Your task to perform on an android device: change the clock display to digital Image 0: 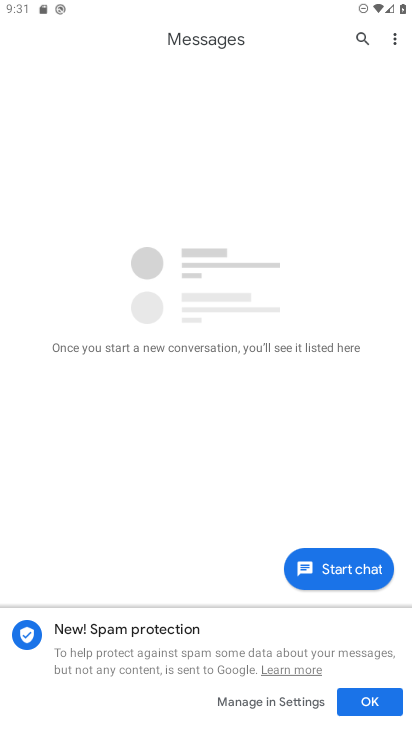
Step 0: press home button
Your task to perform on an android device: change the clock display to digital Image 1: 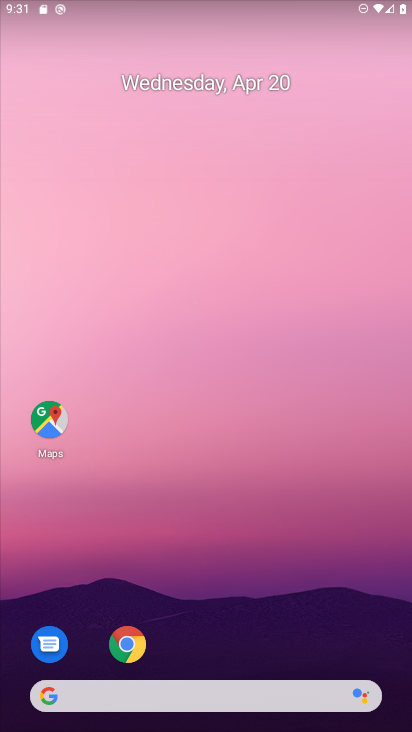
Step 1: drag from (277, 612) to (178, 87)
Your task to perform on an android device: change the clock display to digital Image 2: 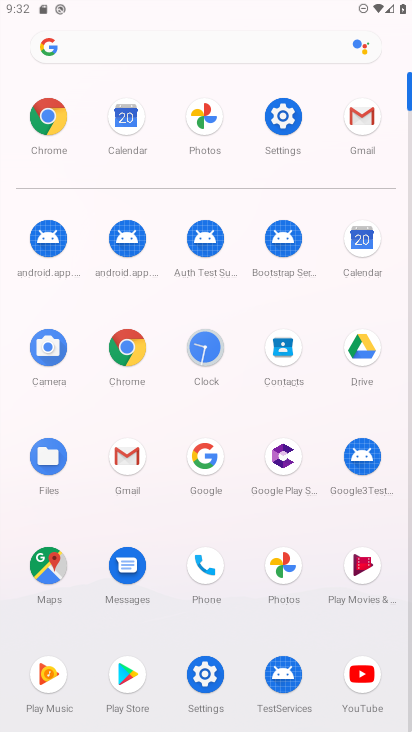
Step 2: click (207, 352)
Your task to perform on an android device: change the clock display to digital Image 3: 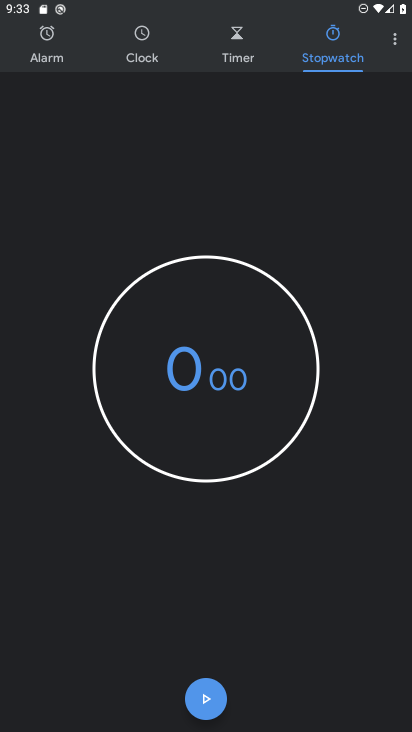
Step 3: click (385, 39)
Your task to perform on an android device: change the clock display to digital Image 4: 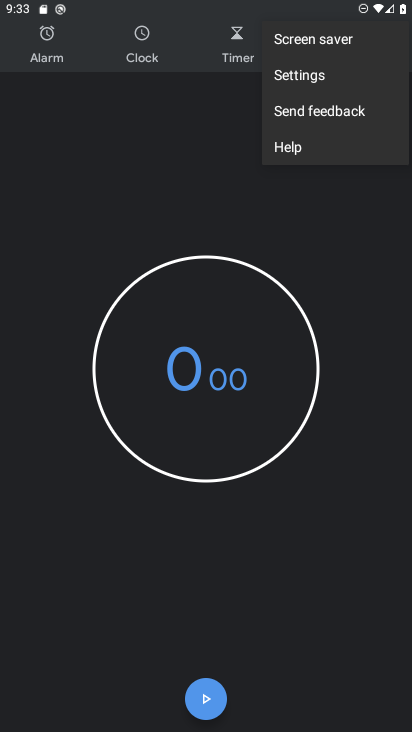
Step 4: click (297, 74)
Your task to perform on an android device: change the clock display to digital Image 5: 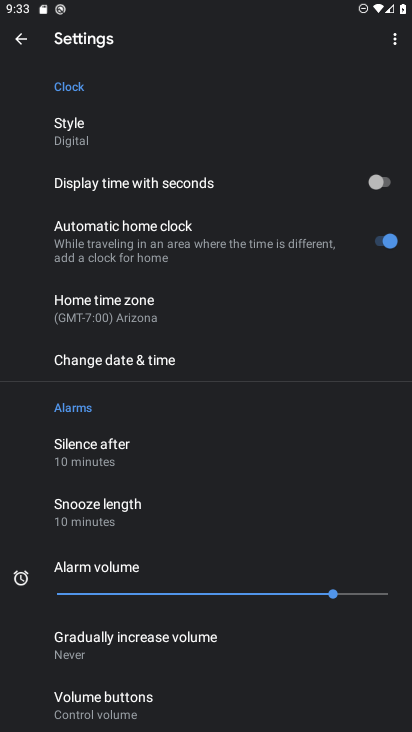
Step 5: task complete